Your task to perform on an android device: Open Youtube and go to "Your channel" Image 0: 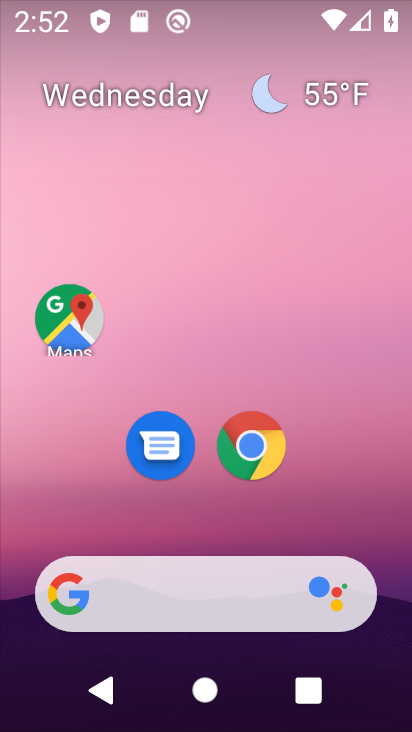
Step 0: drag from (318, 454) to (317, 88)
Your task to perform on an android device: Open Youtube and go to "Your channel" Image 1: 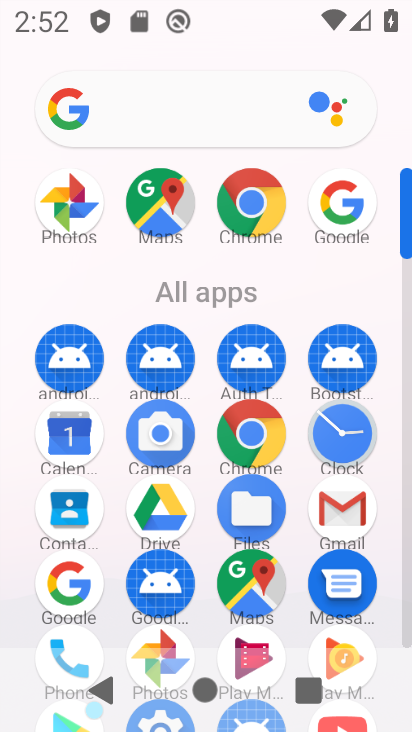
Step 1: drag from (330, 604) to (323, 317)
Your task to perform on an android device: Open Youtube and go to "Your channel" Image 2: 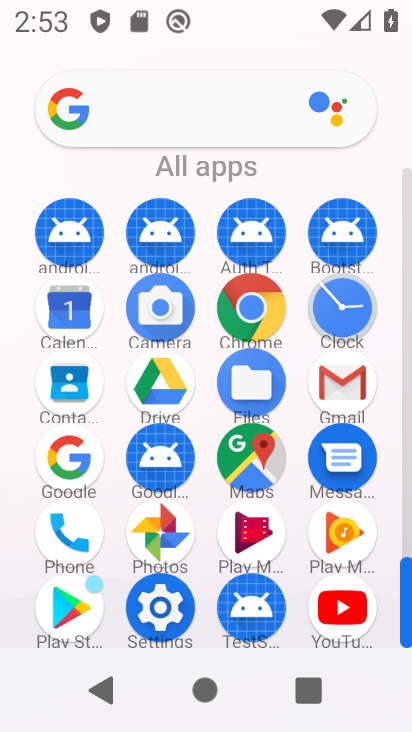
Step 2: click (341, 593)
Your task to perform on an android device: Open Youtube and go to "Your channel" Image 3: 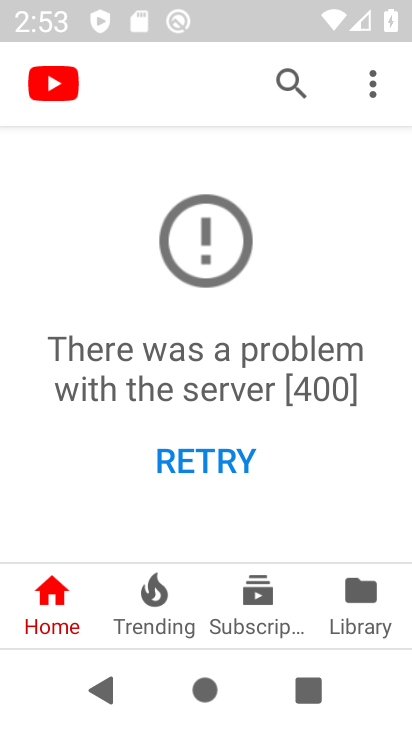
Step 3: click (371, 581)
Your task to perform on an android device: Open Youtube and go to "Your channel" Image 4: 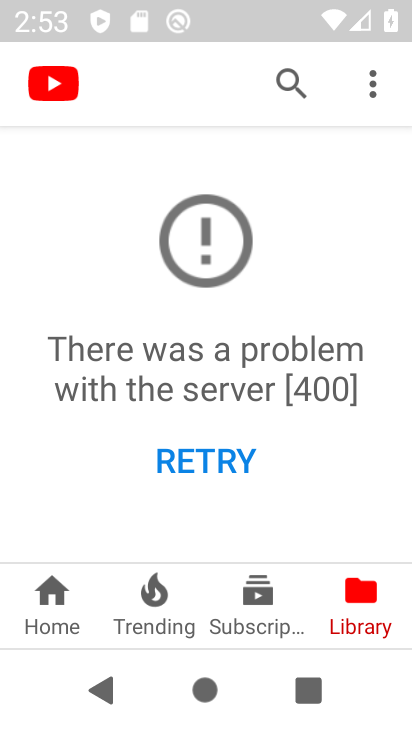
Step 4: click (38, 586)
Your task to perform on an android device: Open Youtube and go to "Your channel" Image 5: 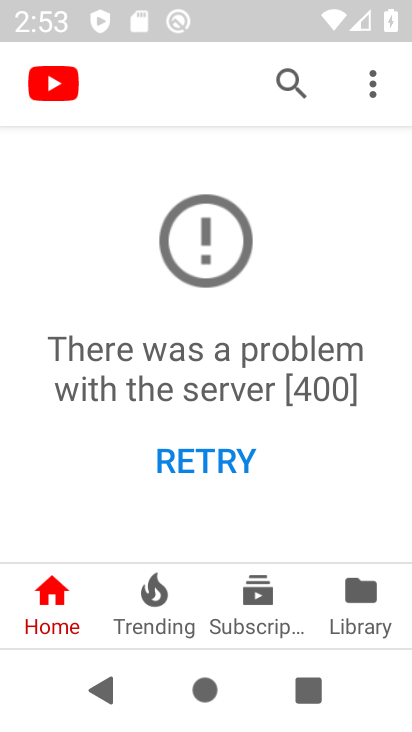
Step 5: click (186, 450)
Your task to perform on an android device: Open Youtube and go to "Your channel" Image 6: 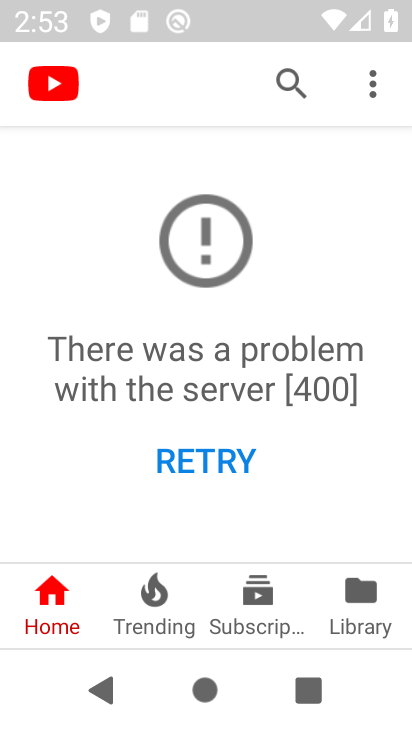
Step 6: click (183, 445)
Your task to perform on an android device: Open Youtube and go to "Your channel" Image 7: 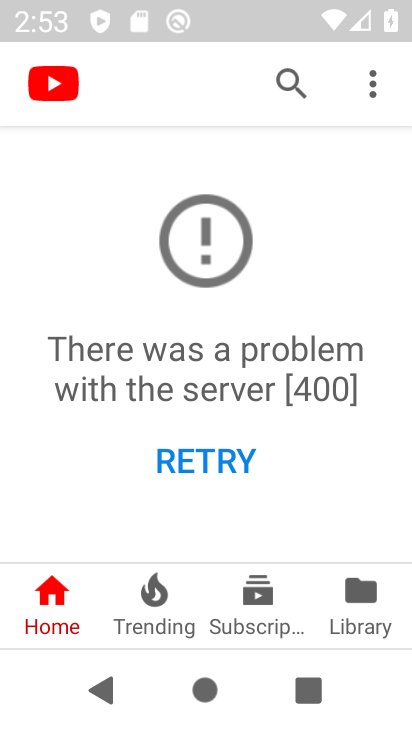
Step 7: task complete